Your task to perform on an android device: add a label to a message in the gmail app Image 0: 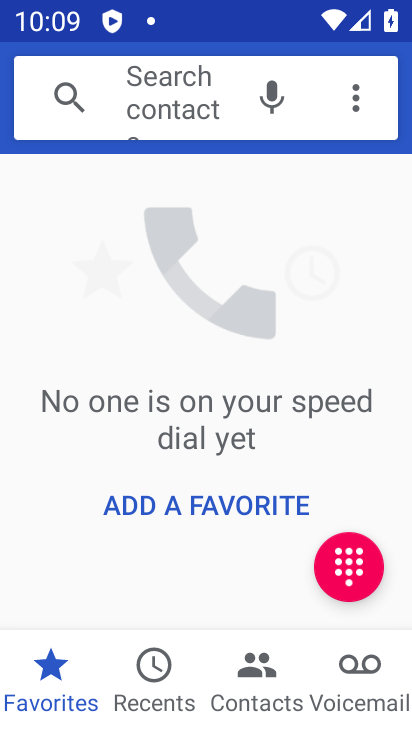
Step 0: press home button
Your task to perform on an android device: add a label to a message in the gmail app Image 1: 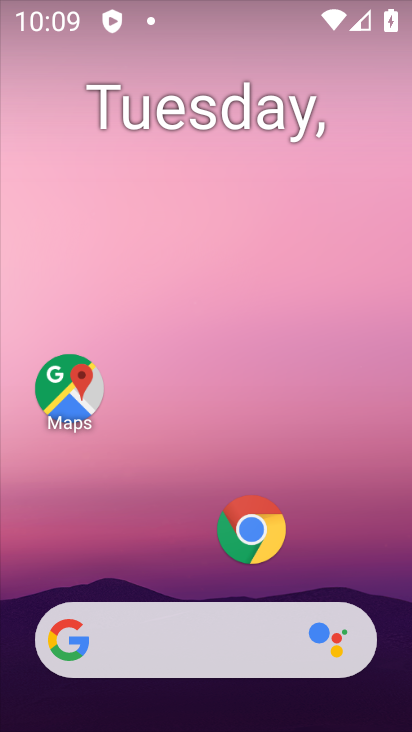
Step 1: drag from (129, 599) to (294, 57)
Your task to perform on an android device: add a label to a message in the gmail app Image 2: 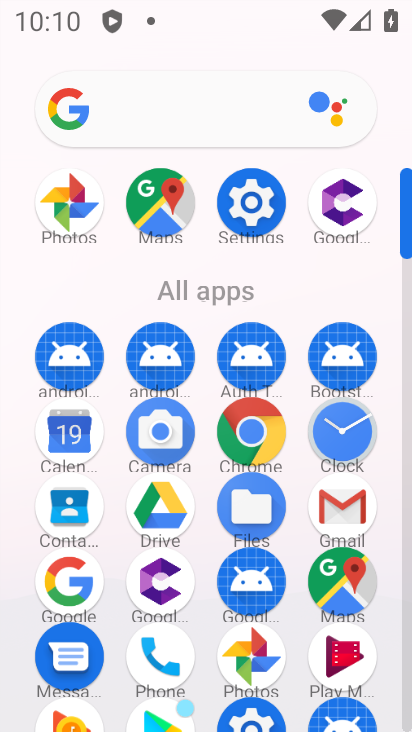
Step 2: click (332, 509)
Your task to perform on an android device: add a label to a message in the gmail app Image 3: 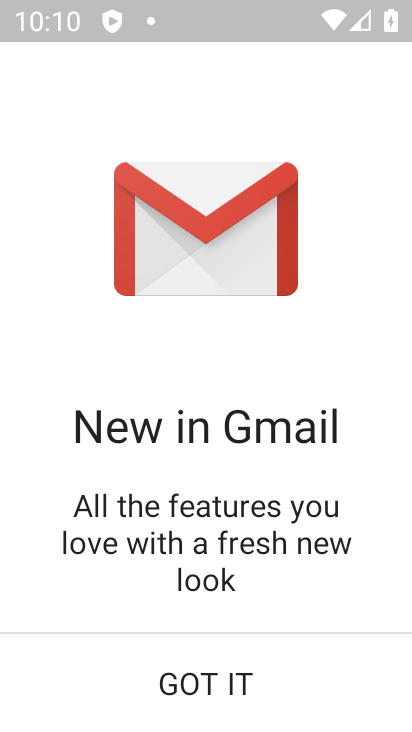
Step 3: click (232, 670)
Your task to perform on an android device: add a label to a message in the gmail app Image 4: 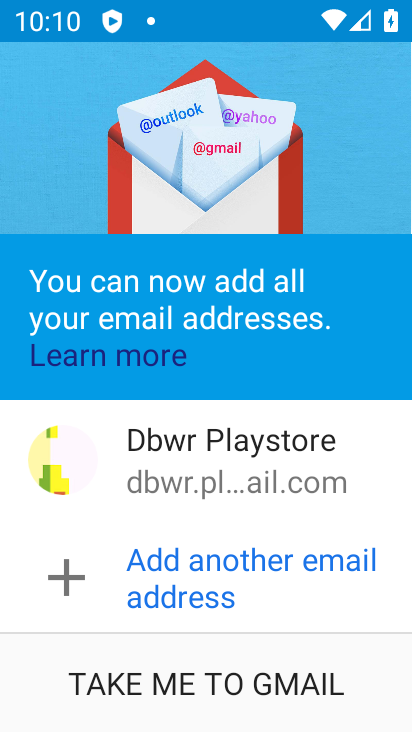
Step 4: click (221, 675)
Your task to perform on an android device: add a label to a message in the gmail app Image 5: 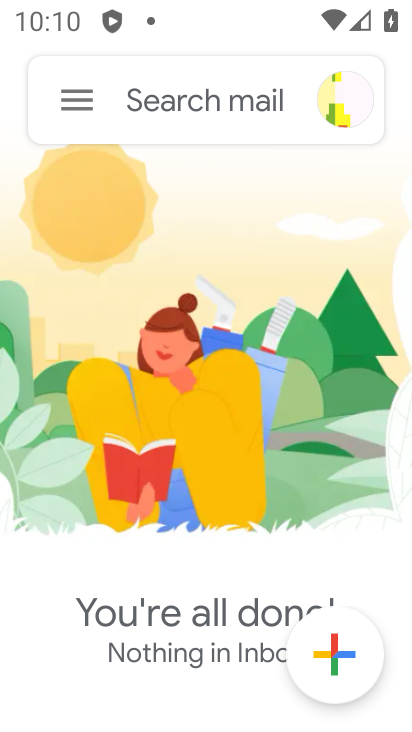
Step 5: task complete